Your task to perform on an android device: turn off location history Image 0: 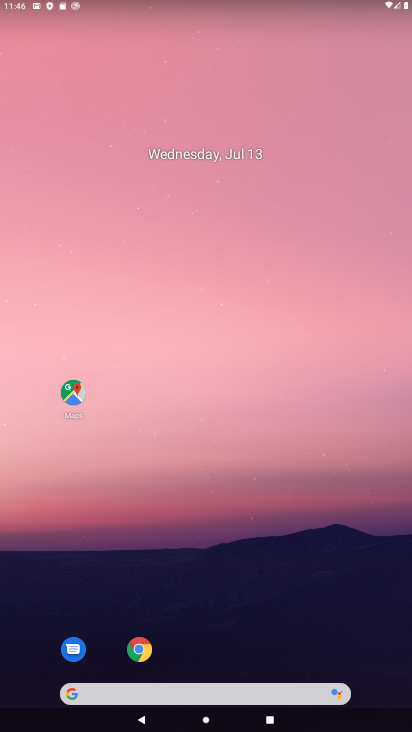
Step 0: drag from (257, 641) to (248, 73)
Your task to perform on an android device: turn off location history Image 1: 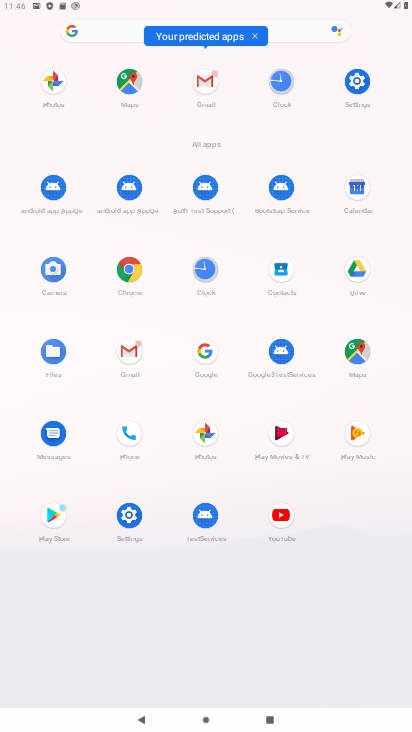
Step 1: click (358, 78)
Your task to perform on an android device: turn off location history Image 2: 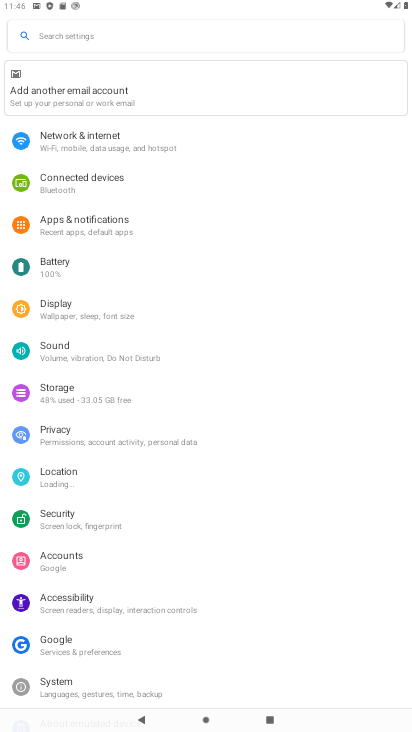
Step 2: click (41, 480)
Your task to perform on an android device: turn off location history Image 3: 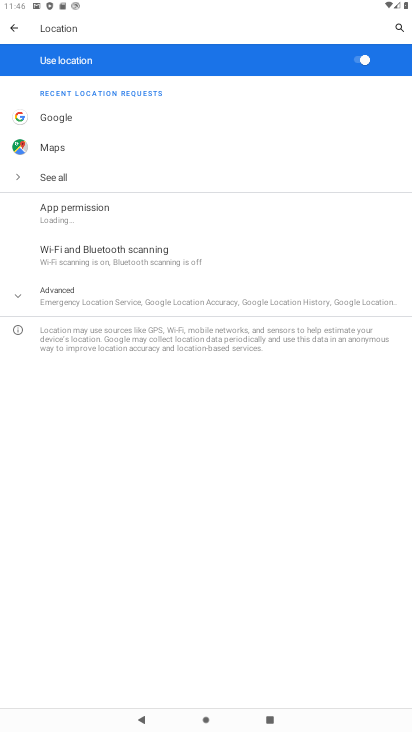
Step 3: click (67, 290)
Your task to perform on an android device: turn off location history Image 4: 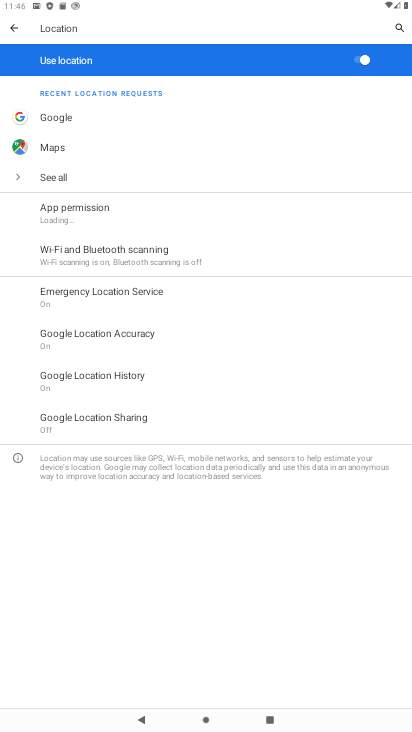
Step 4: click (88, 372)
Your task to perform on an android device: turn off location history Image 5: 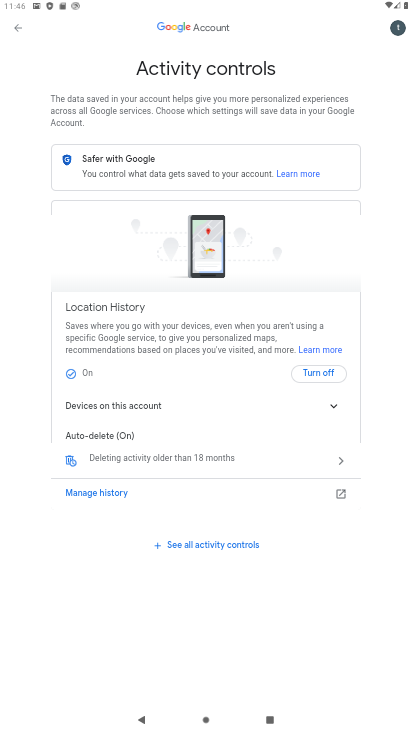
Step 5: click (317, 375)
Your task to perform on an android device: turn off location history Image 6: 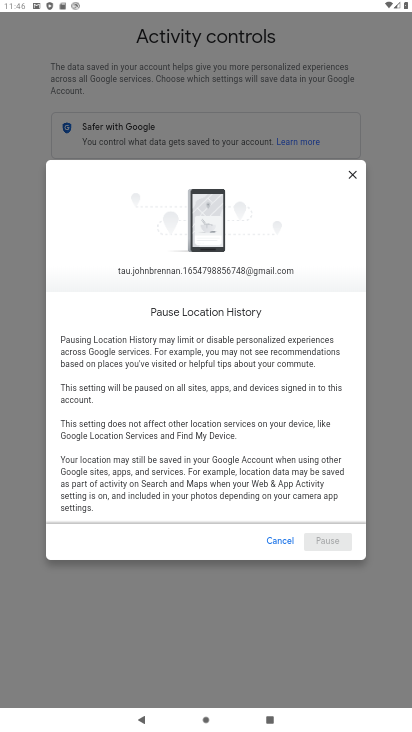
Step 6: drag from (260, 467) to (329, 38)
Your task to perform on an android device: turn off location history Image 7: 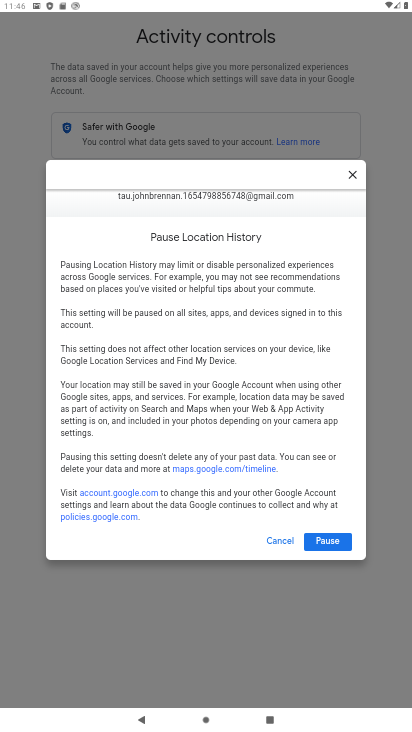
Step 7: click (329, 541)
Your task to perform on an android device: turn off location history Image 8: 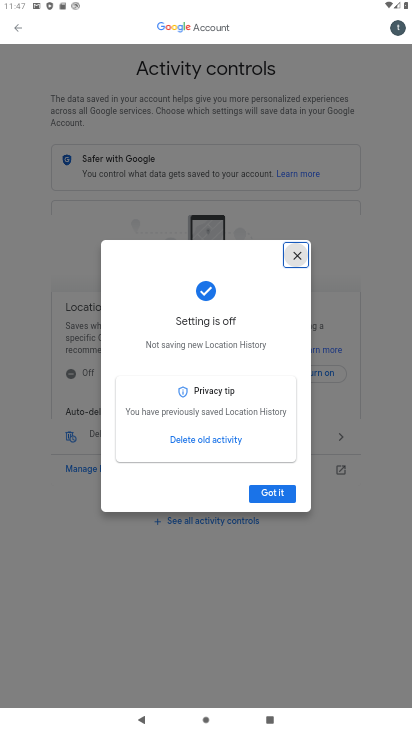
Step 8: click (282, 493)
Your task to perform on an android device: turn off location history Image 9: 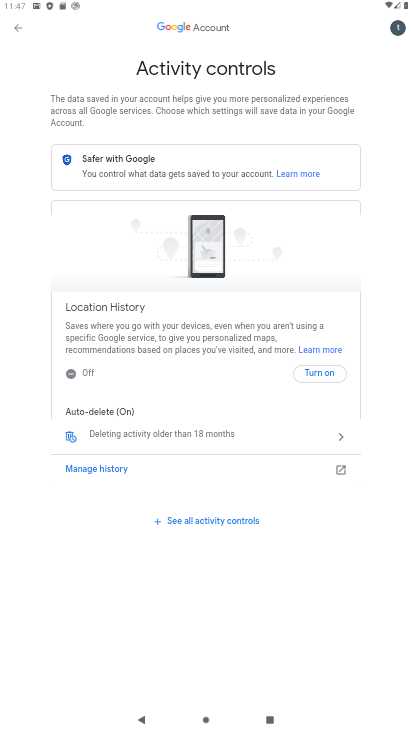
Step 9: task complete